Your task to perform on an android device: Go to internet settings Image 0: 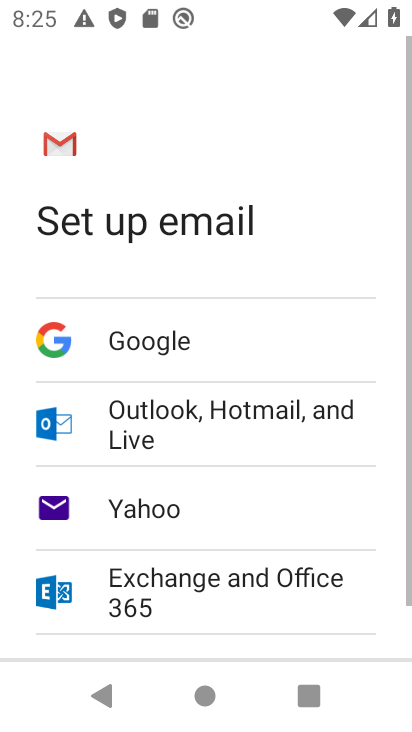
Step 0: press home button
Your task to perform on an android device: Go to internet settings Image 1: 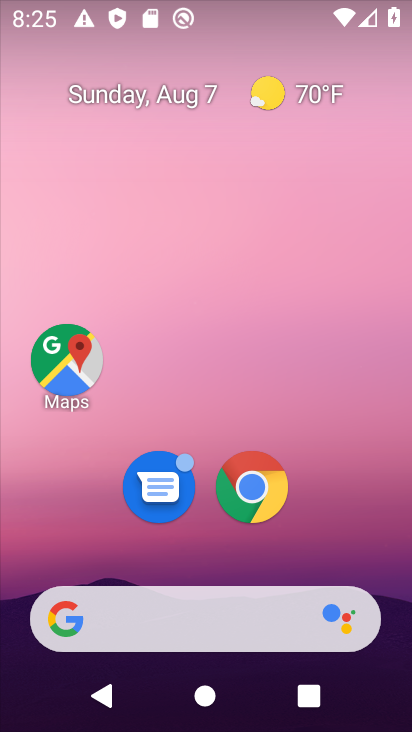
Step 1: drag from (383, 537) to (305, 51)
Your task to perform on an android device: Go to internet settings Image 2: 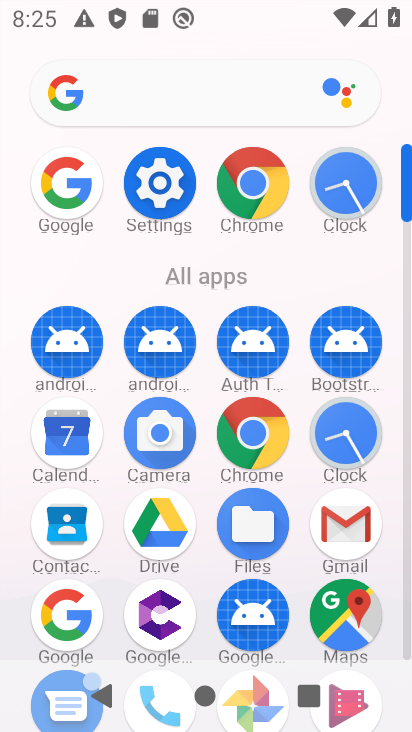
Step 2: click (158, 185)
Your task to perform on an android device: Go to internet settings Image 3: 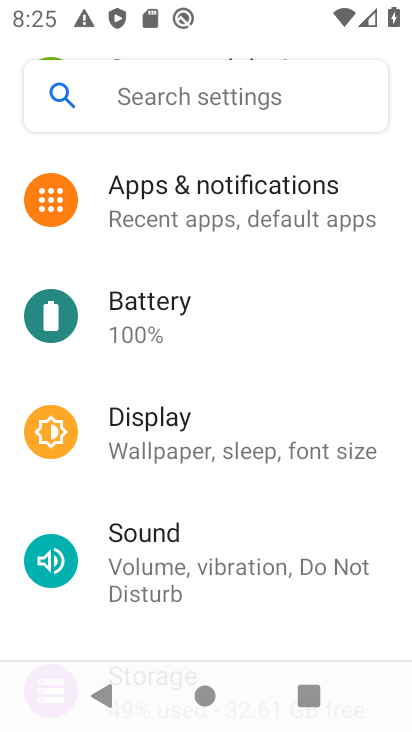
Step 3: drag from (235, 163) to (223, 631)
Your task to perform on an android device: Go to internet settings Image 4: 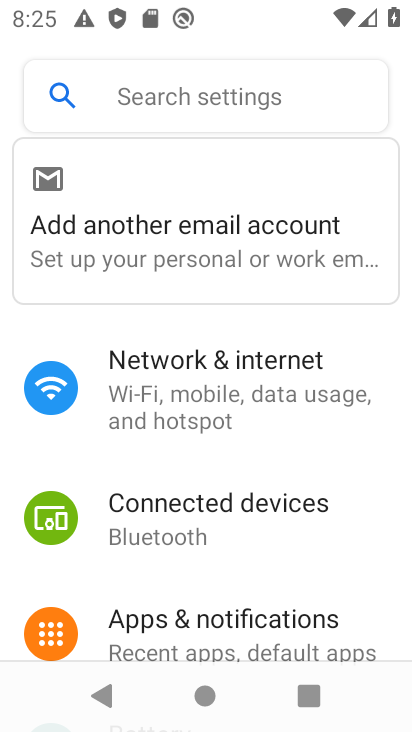
Step 4: click (171, 375)
Your task to perform on an android device: Go to internet settings Image 5: 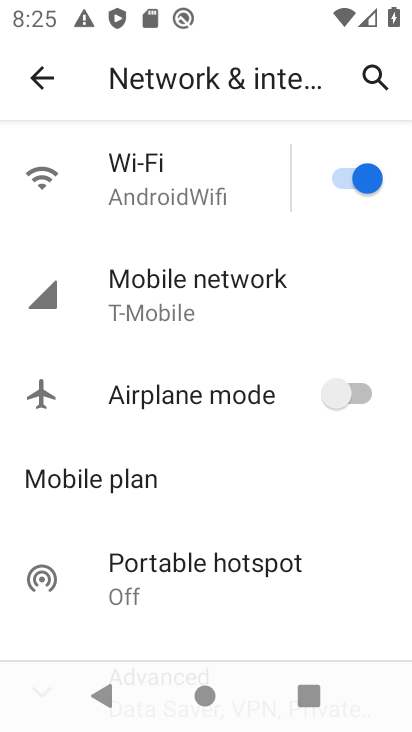
Step 5: drag from (258, 508) to (233, 198)
Your task to perform on an android device: Go to internet settings Image 6: 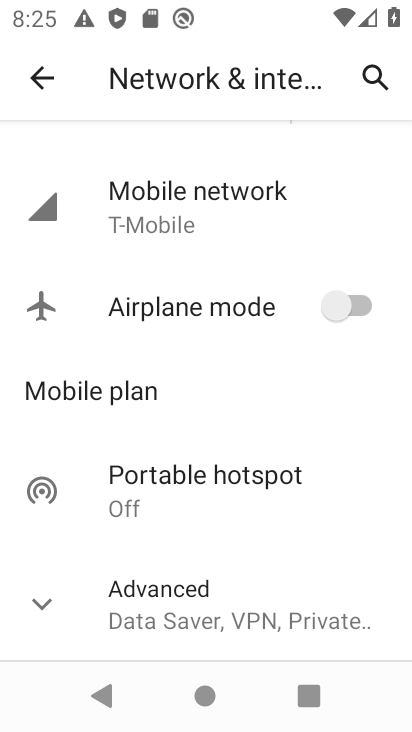
Step 6: click (47, 607)
Your task to perform on an android device: Go to internet settings Image 7: 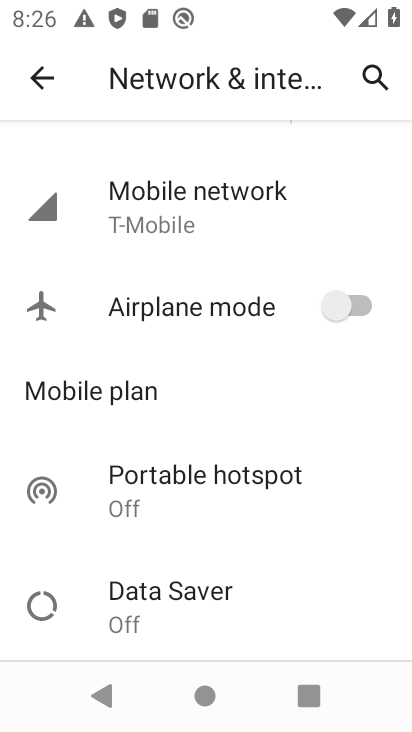
Step 7: task complete